Your task to perform on an android device: What's the weather going to be tomorrow? Image 0: 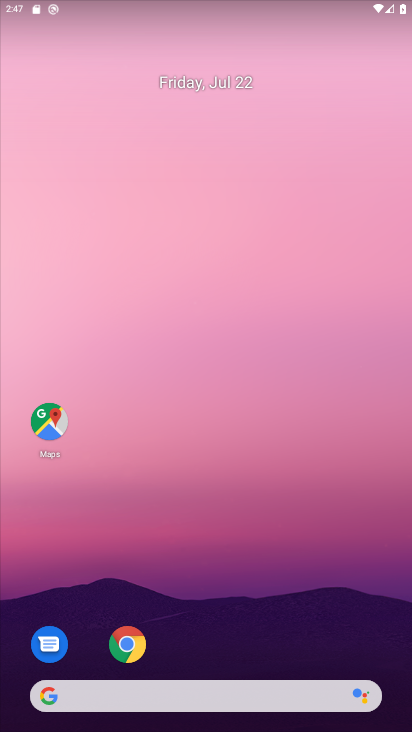
Step 0: drag from (256, 670) to (252, 235)
Your task to perform on an android device: What's the weather going to be tomorrow? Image 1: 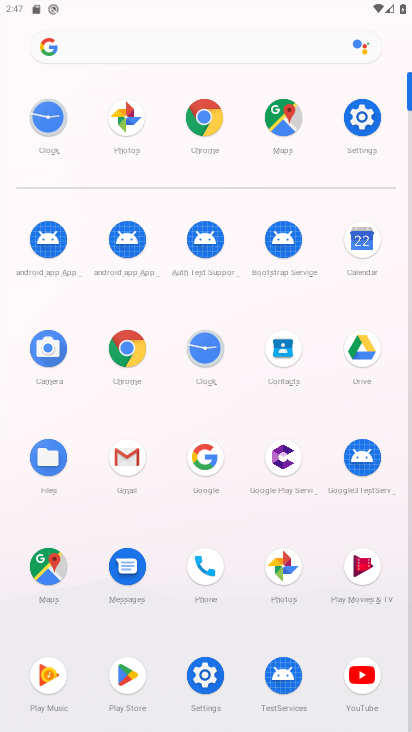
Step 1: click (361, 238)
Your task to perform on an android device: What's the weather going to be tomorrow? Image 2: 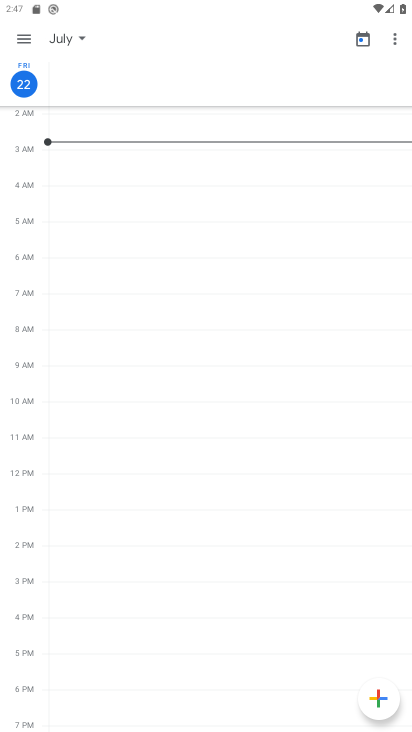
Step 2: click (27, 36)
Your task to perform on an android device: What's the weather going to be tomorrow? Image 3: 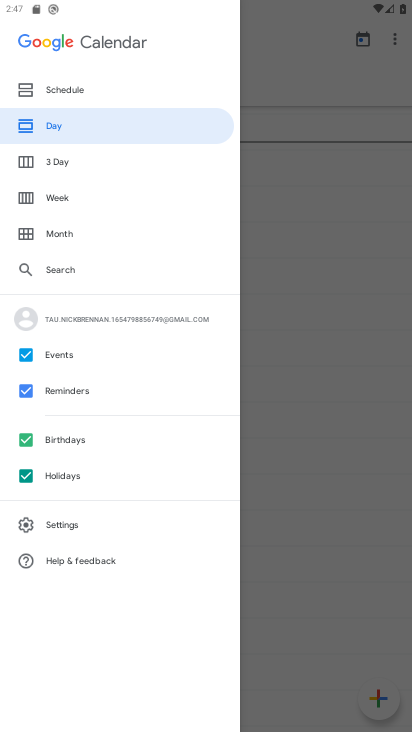
Step 3: click (57, 229)
Your task to perform on an android device: What's the weather going to be tomorrow? Image 4: 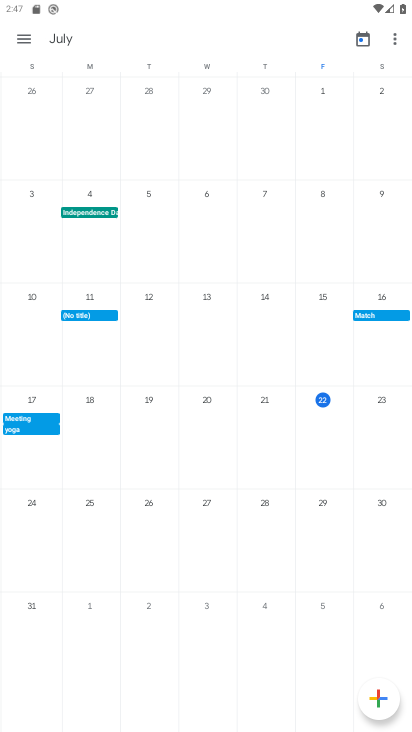
Step 4: click (376, 420)
Your task to perform on an android device: What's the weather going to be tomorrow? Image 5: 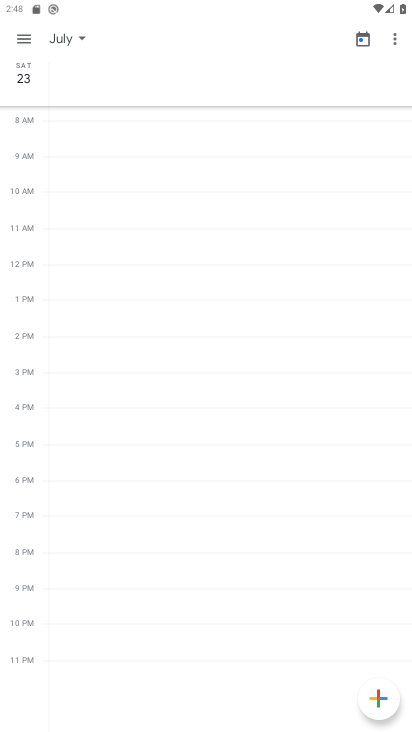
Step 5: press home button
Your task to perform on an android device: What's the weather going to be tomorrow? Image 6: 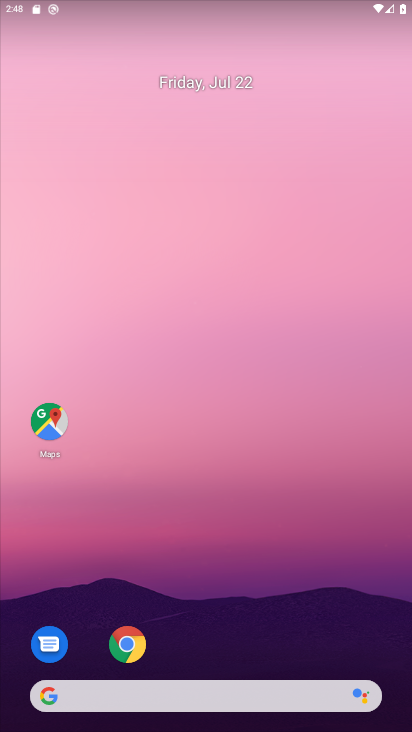
Step 6: click (138, 648)
Your task to perform on an android device: What's the weather going to be tomorrow? Image 7: 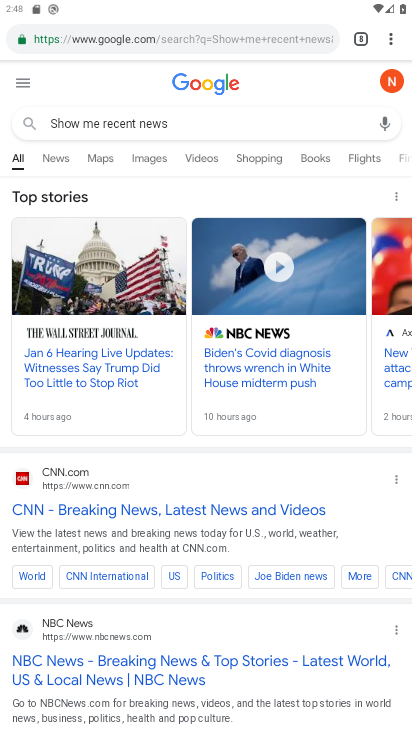
Step 7: click (387, 32)
Your task to perform on an android device: What's the weather going to be tomorrow? Image 8: 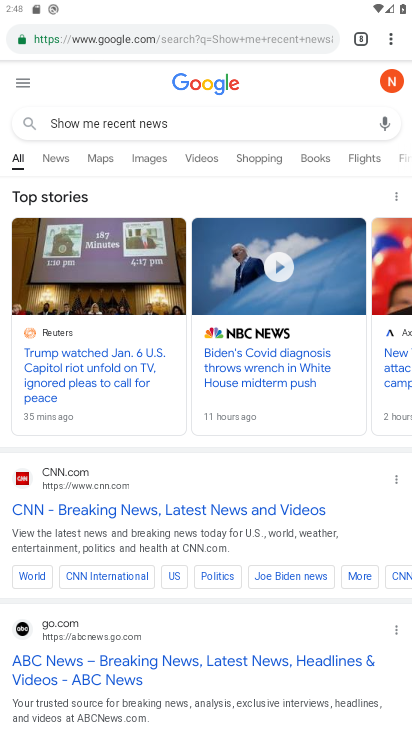
Step 8: click (411, 31)
Your task to perform on an android device: What's the weather going to be tomorrow? Image 9: 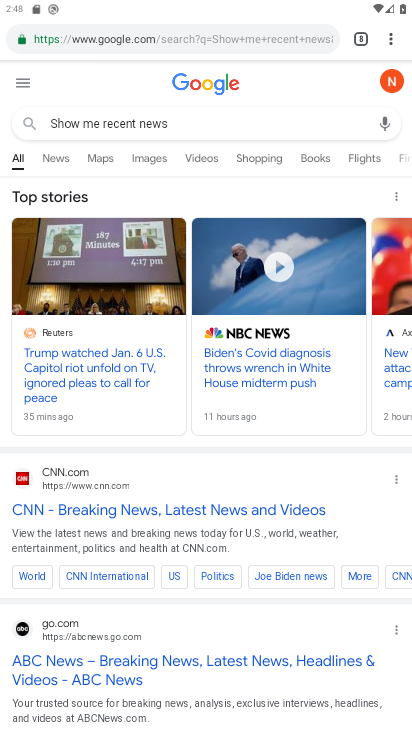
Step 9: click (389, 50)
Your task to perform on an android device: What's the weather going to be tomorrow? Image 10: 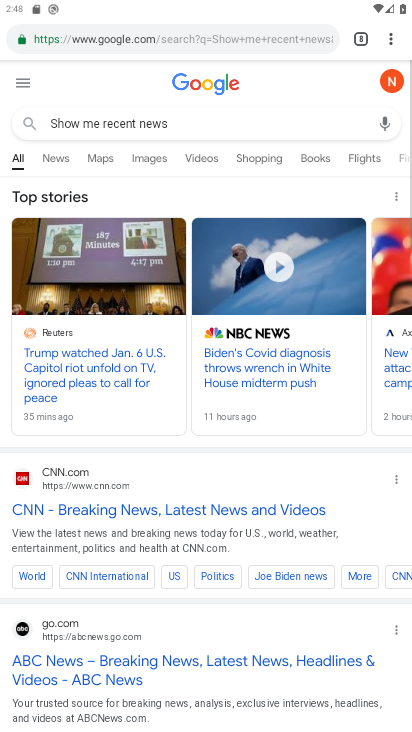
Step 10: click (394, 30)
Your task to perform on an android device: What's the weather going to be tomorrow? Image 11: 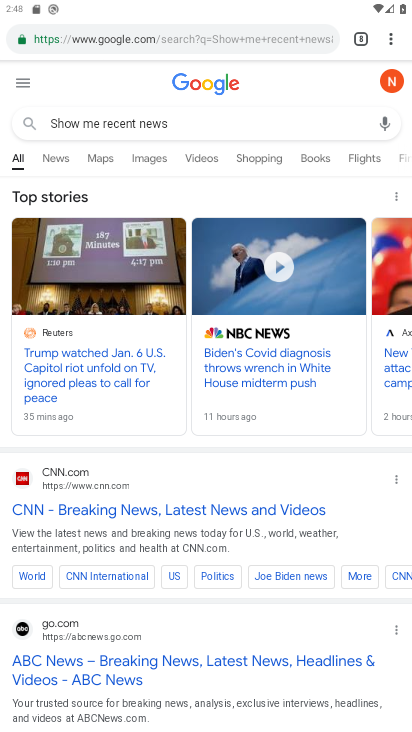
Step 11: click (394, 30)
Your task to perform on an android device: What's the weather going to be tomorrow? Image 12: 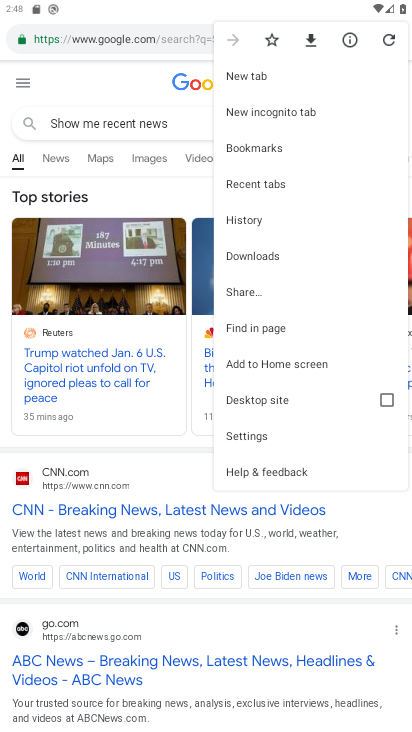
Step 12: click (394, 30)
Your task to perform on an android device: What's the weather going to be tomorrow? Image 13: 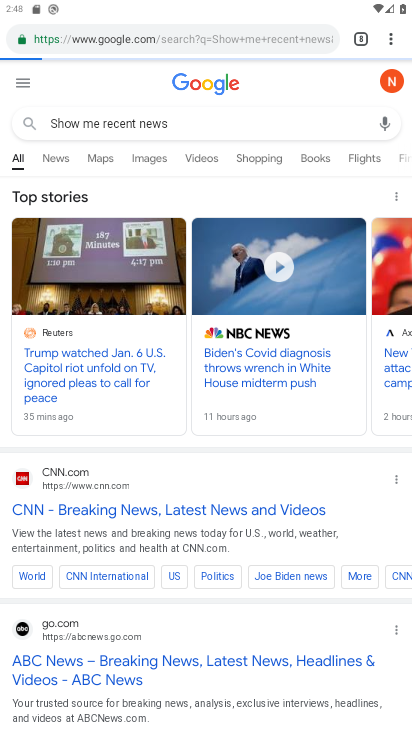
Step 13: click (394, 30)
Your task to perform on an android device: What's the weather going to be tomorrow? Image 14: 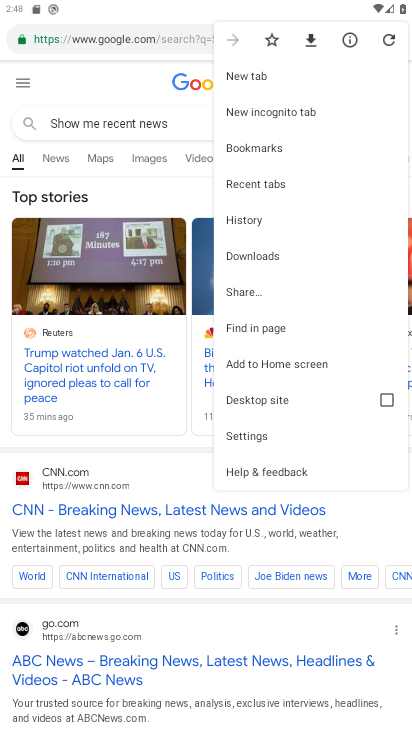
Step 14: click (254, 71)
Your task to perform on an android device: What's the weather going to be tomorrow? Image 15: 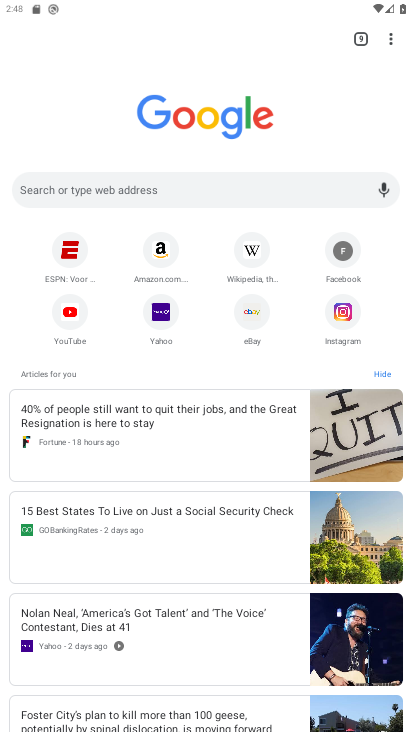
Step 15: click (79, 188)
Your task to perform on an android device: What's the weather going to be tomorrow? Image 16: 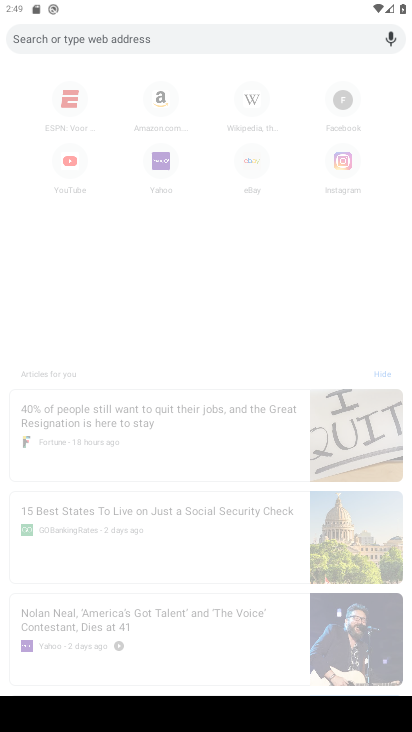
Step 16: type "What's the weather going to be tomorrow "
Your task to perform on an android device: What's the weather going to be tomorrow? Image 17: 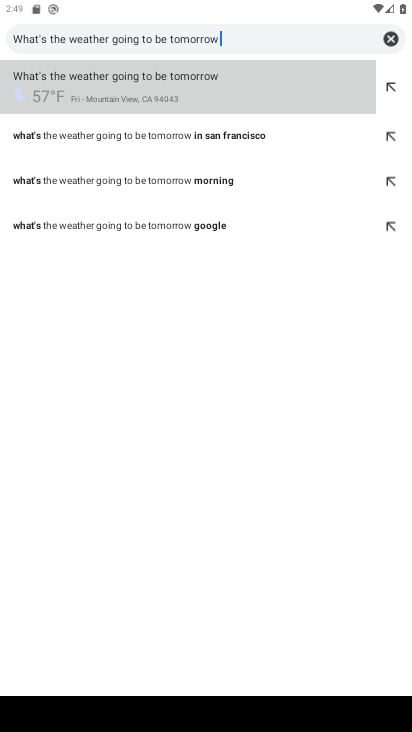
Step 17: click (139, 73)
Your task to perform on an android device: What's the weather going to be tomorrow? Image 18: 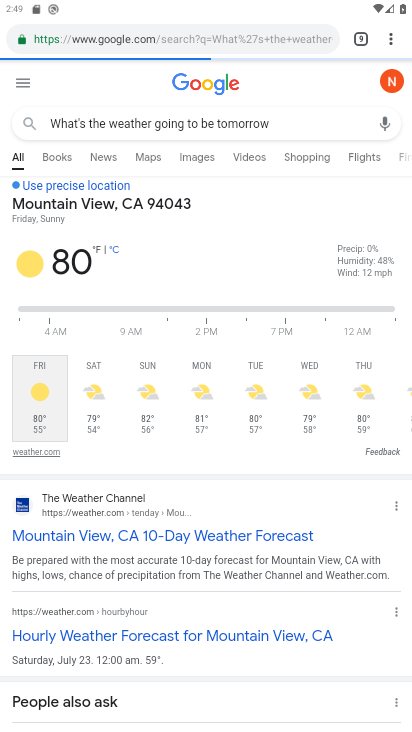
Step 18: task complete